Your task to perform on an android device: Go to location settings Image 0: 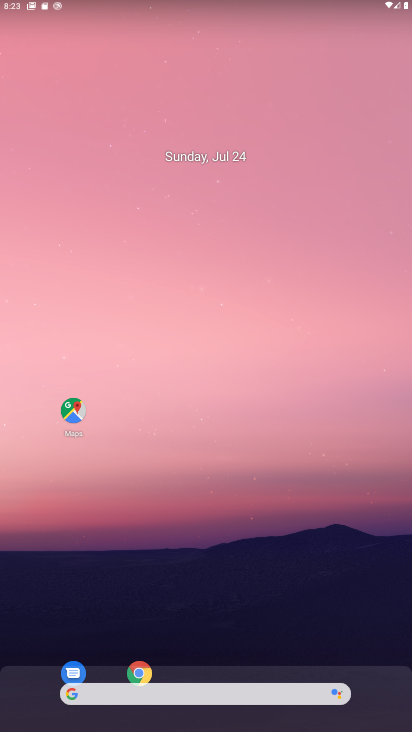
Step 0: drag from (192, 686) to (184, 80)
Your task to perform on an android device: Go to location settings Image 1: 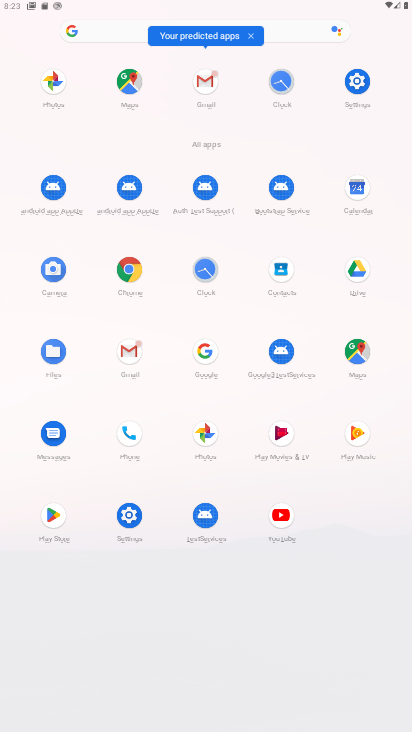
Step 1: click (133, 513)
Your task to perform on an android device: Go to location settings Image 2: 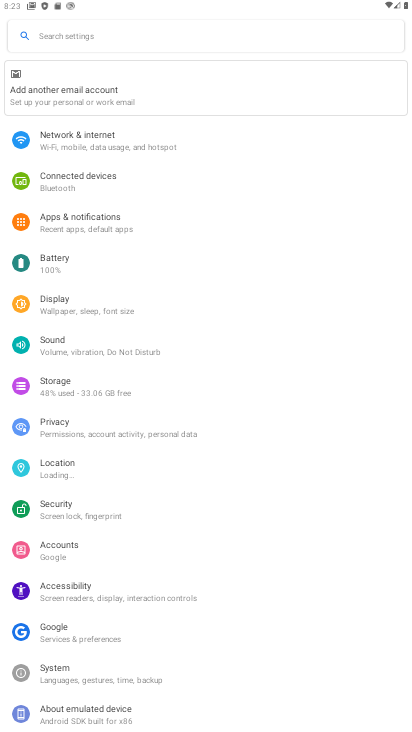
Step 2: click (64, 469)
Your task to perform on an android device: Go to location settings Image 3: 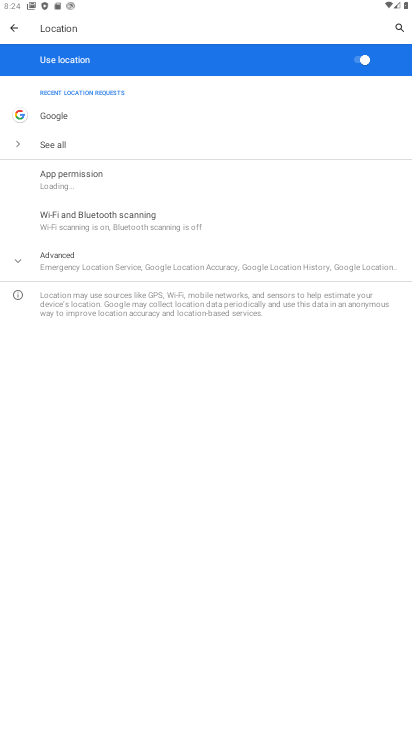
Step 3: click (86, 266)
Your task to perform on an android device: Go to location settings Image 4: 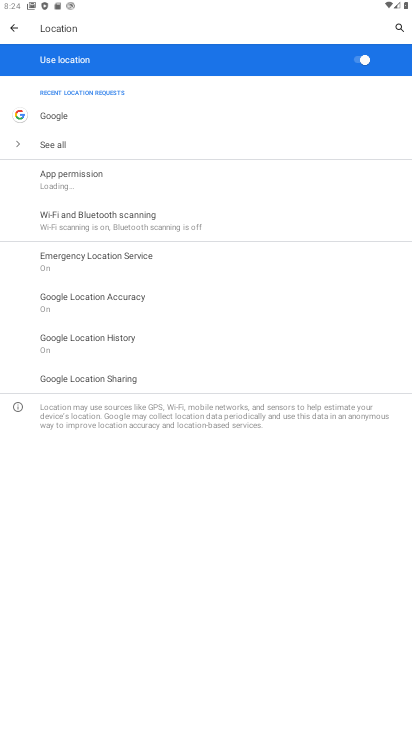
Step 4: task complete